Your task to perform on an android device: turn on showing notifications on the lock screen Image 0: 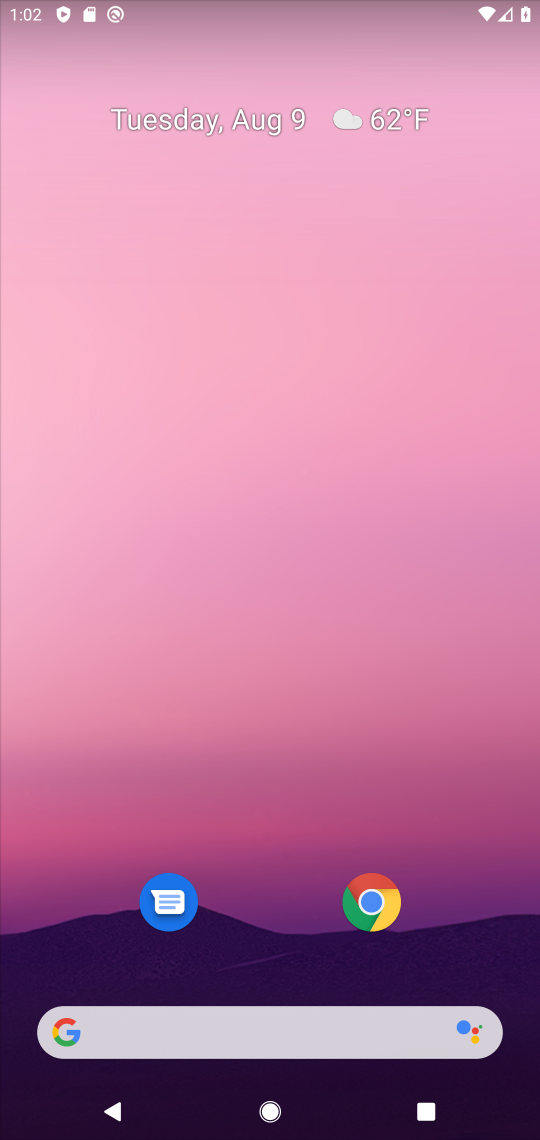
Step 0: drag from (266, 794) to (344, 298)
Your task to perform on an android device: turn on showing notifications on the lock screen Image 1: 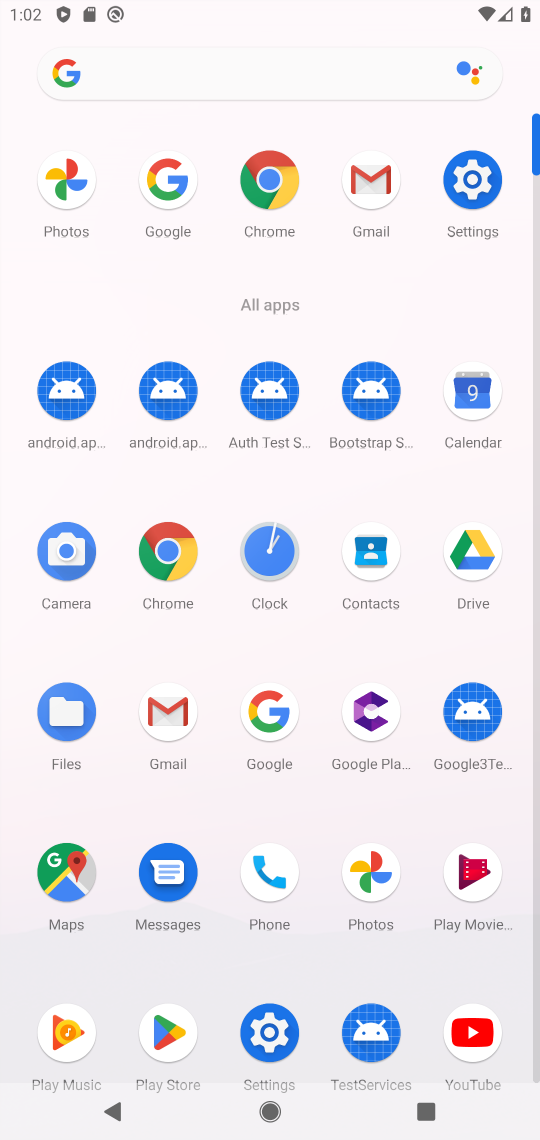
Step 1: click (467, 181)
Your task to perform on an android device: turn on showing notifications on the lock screen Image 2: 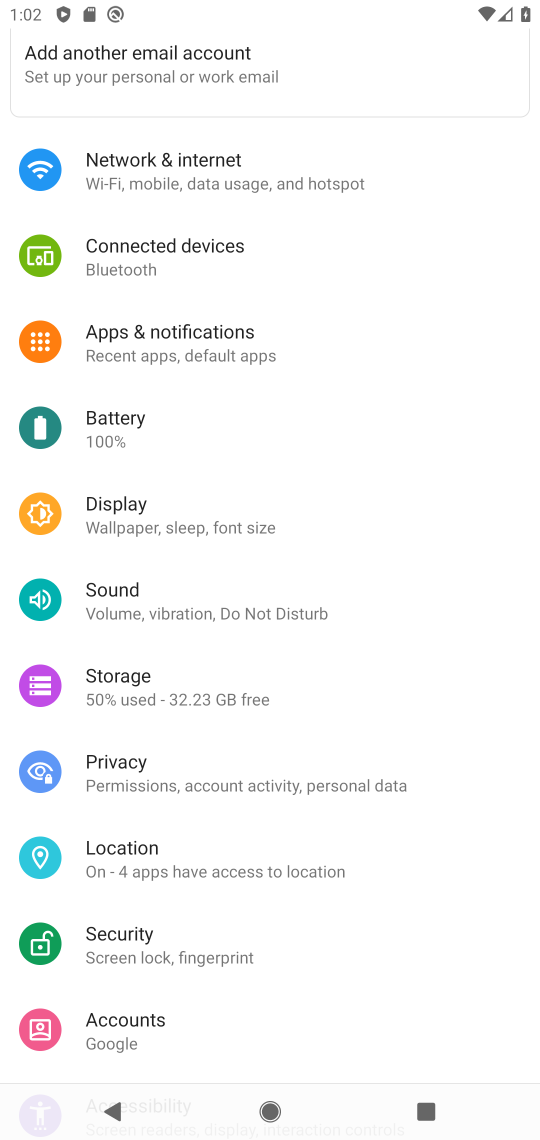
Step 2: click (132, 777)
Your task to perform on an android device: turn on showing notifications on the lock screen Image 3: 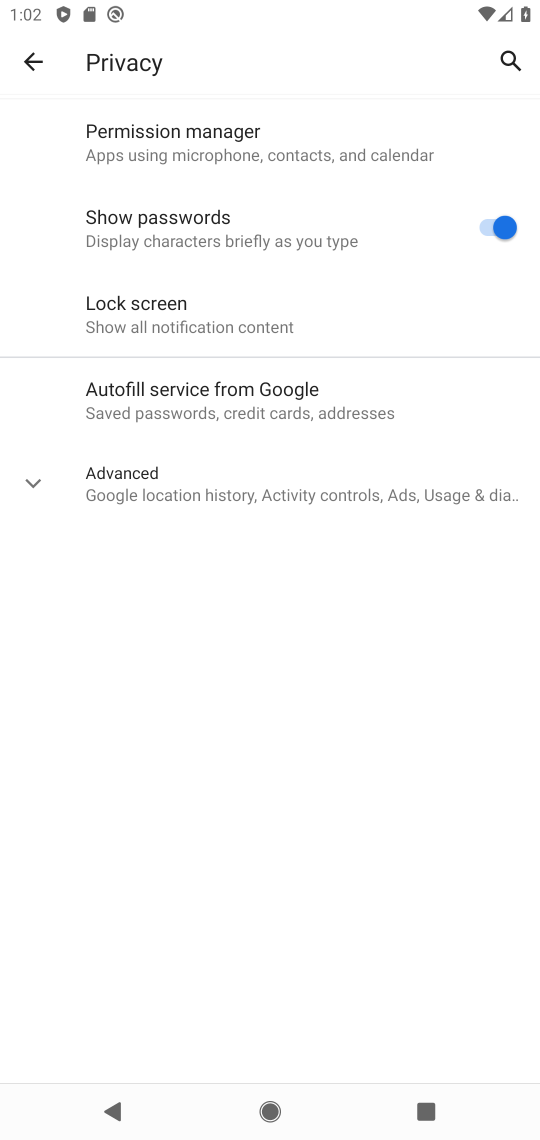
Step 3: click (144, 324)
Your task to perform on an android device: turn on showing notifications on the lock screen Image 4: 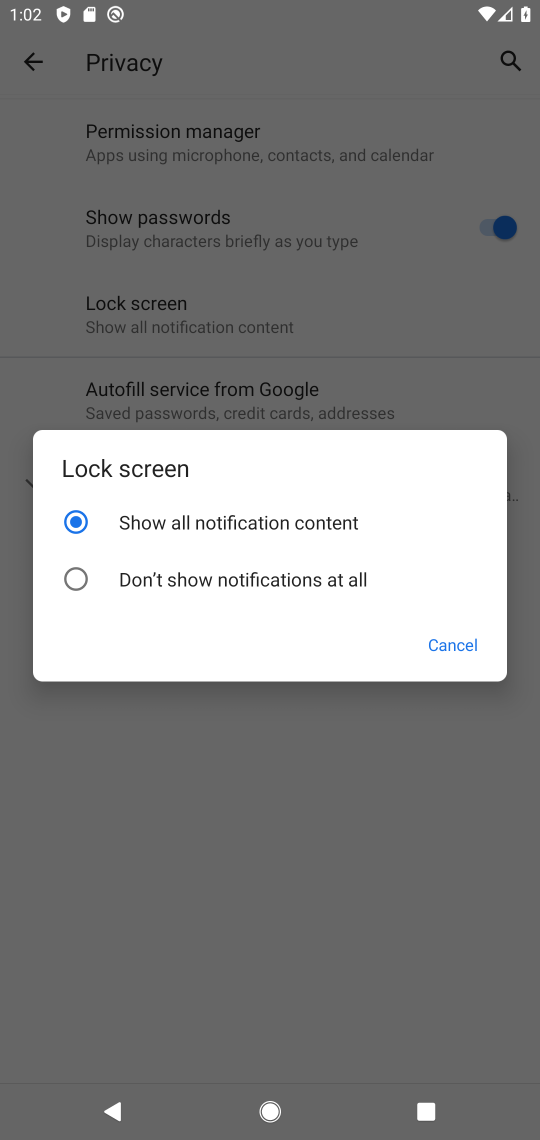
Step 4: task complete